Your task to perform on an android device: toggle pop-ups in chrome Image 0: 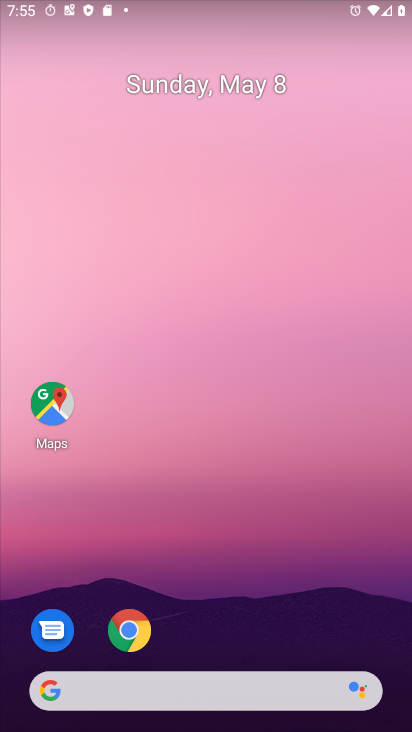
Step 0: drag from (209, 658) to (138, 24)
Your task to perform on an android device: toggle pop-ups in chrome Image 1: 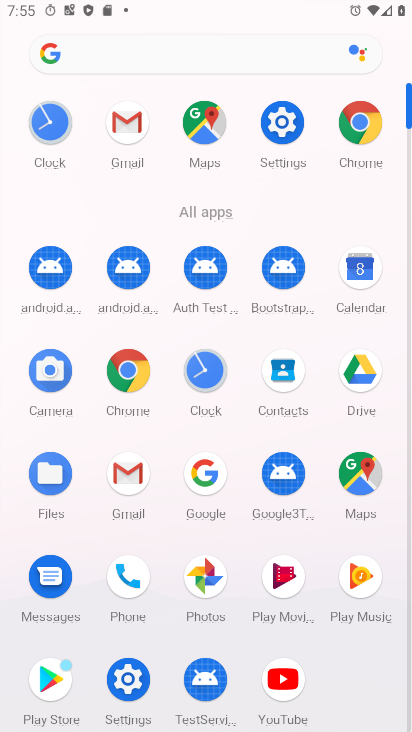
Step 1: click (370, 116)
Your task to perform on an android device: toggle pop-ups in chrome Image 2: 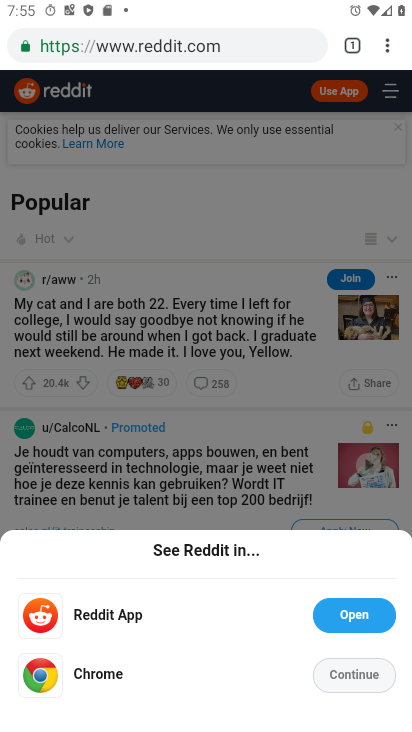
Step 2: press home button
Your task to perform on an android device: toggle pop-ups in chrome Image 3: 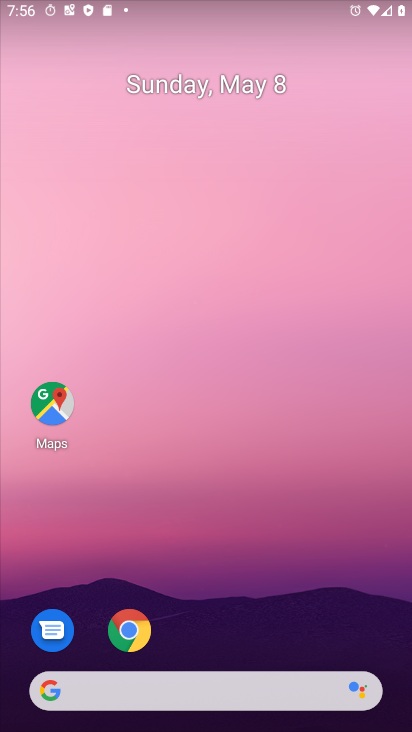
Step 3: drag from (225, 653) to (199, 26)
Your task to perform on an android device: toggle pop-ups in chrome Image 4: 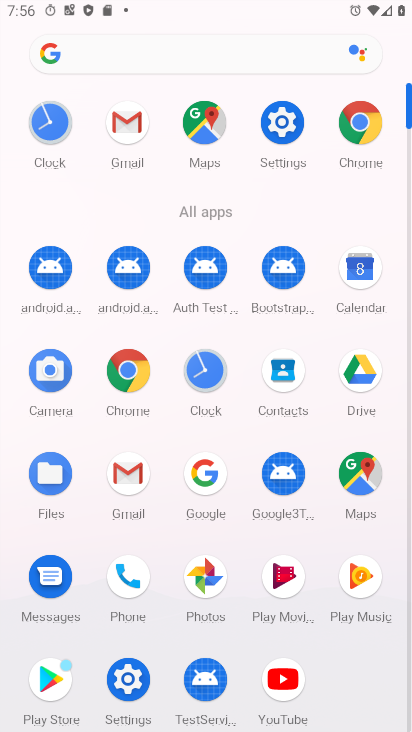
Step 4: click (136, 402)
Your task to perform on an android device: toggle pop-ups in chrome Image 5: 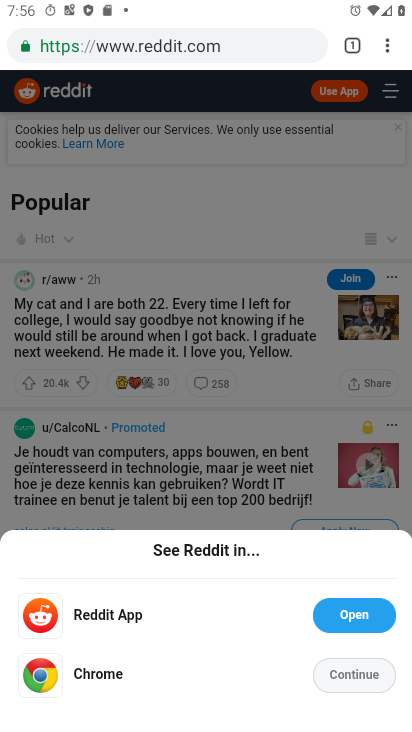
Step 5: click (341, 675)
Your task to perform on an android device: toggle pop-ups in chrome Image 6: 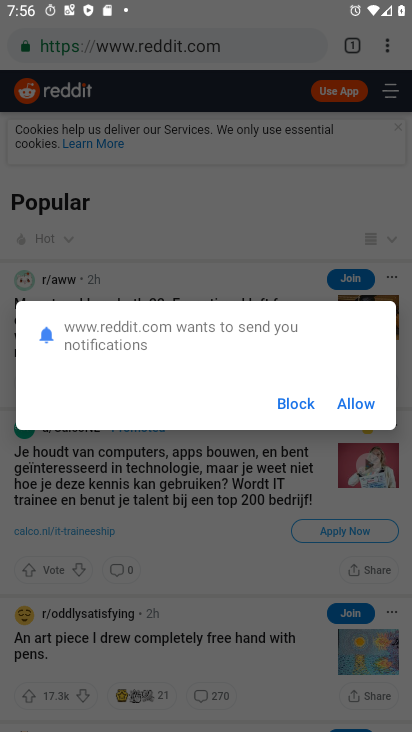
Step 6: click (346, 410)
Your task to perform on an android device: toggle pop-ups in chrome Image 7: 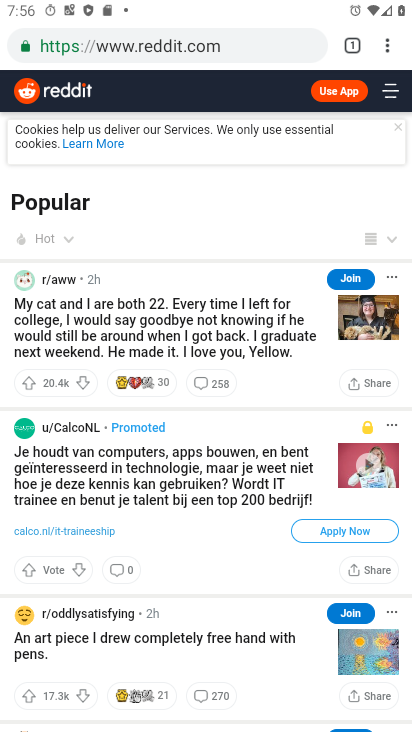
Step 7: click (388, 47)
Your task to perform on an android device: toggle pop-ups in chrome Image 8: 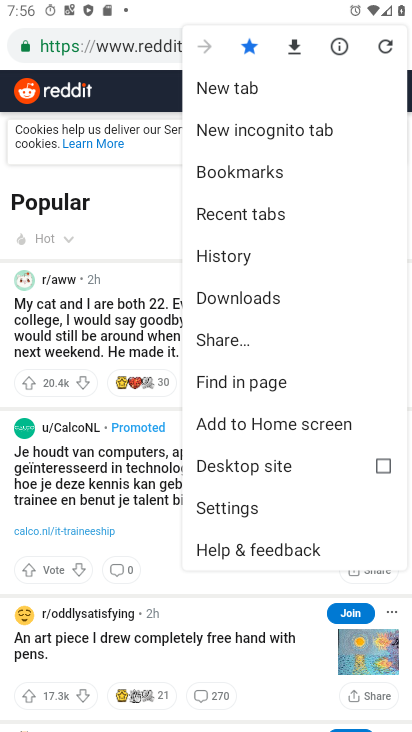
Step 8: click (237, 501)
Your task to perform on an android device: toggle pop-ups in chrome Image 9: 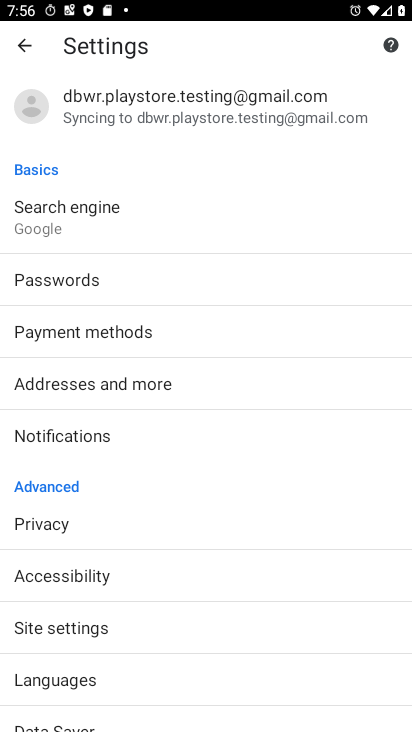
Step 9: click (70, 624)
Your task to perform on an android device: toggle pop-ups in chrome Image 10: 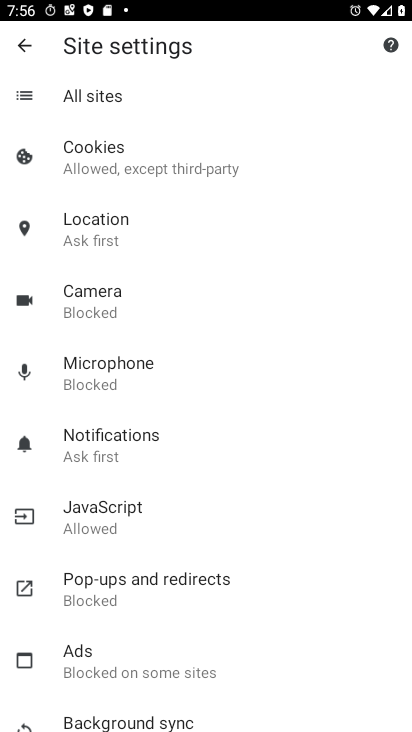
Step 10: click (102, 586)
Your task to perform on an android device: toggle pop-ups in chrome Image 11: 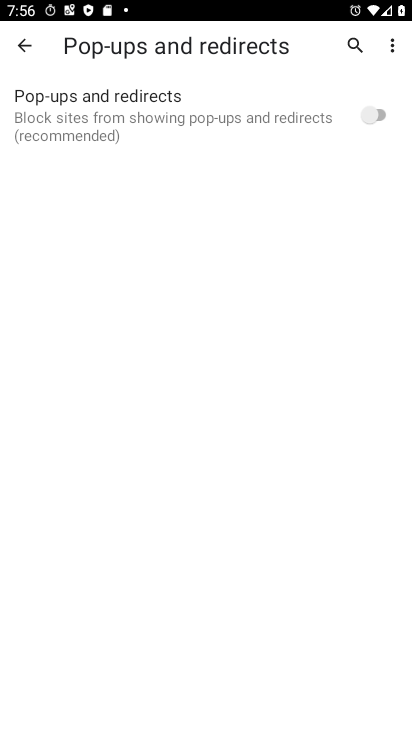
Step 11: click (375, 108)
Your task to perform on an android device: toggle pop-ups in chrome Image 12: 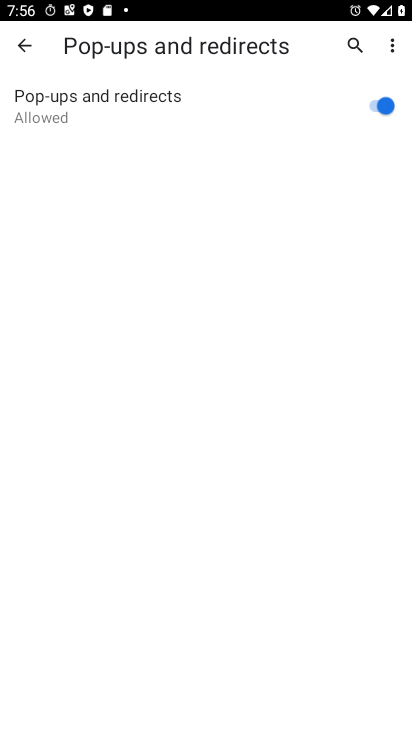
Step 12: task complete